Your task to perform on an android device: snooze an email in the gmail app Image 0: 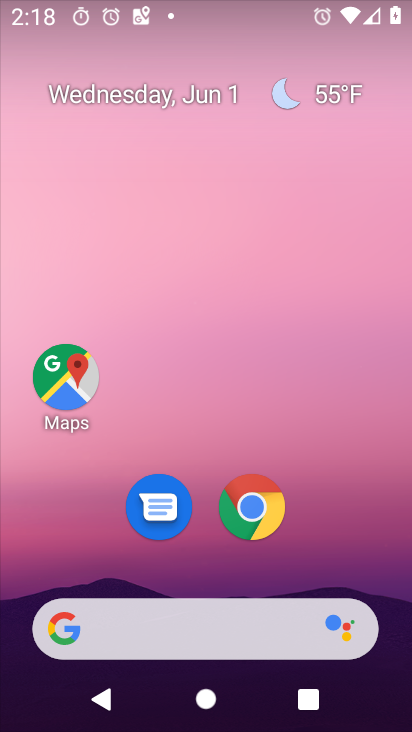
Step 0: drag from (402, 566) to (297, 18)
Your task to perform on an android device: snooze an email in the gmail app Image 1: 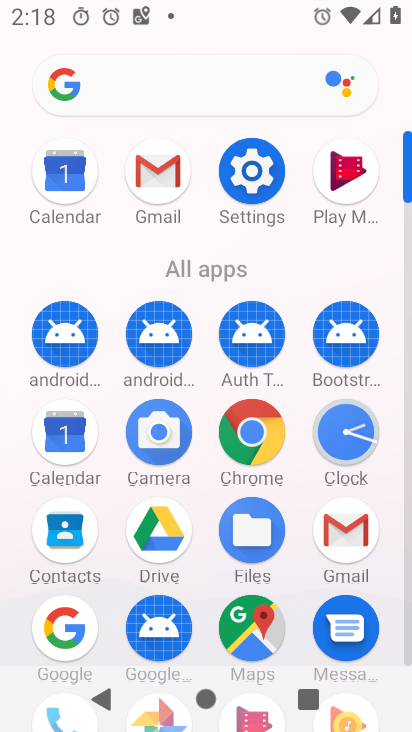
Step 1: click (165, 178)
Your task to perform on an android device: snooze an email in the gmail app Image 2: 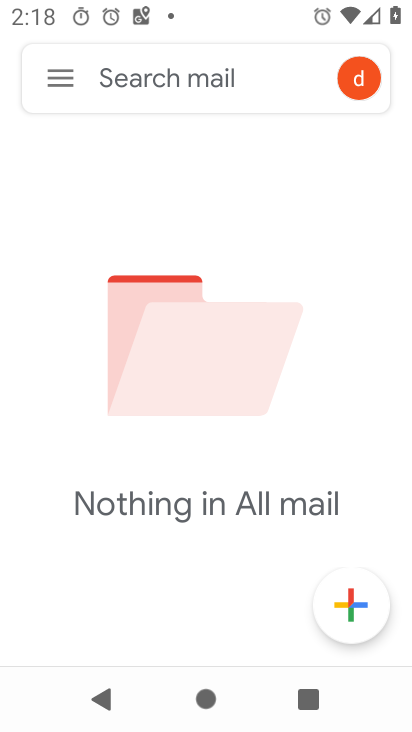
Step 2: click (62, 83)
Your task to perform on an android device: snooze an email in the gmail app Image 3: 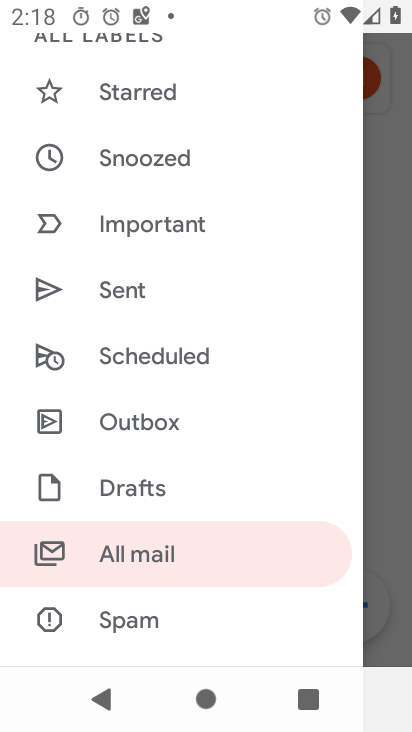
Step 3: click (132, 534)
Your task to perform on an android device: snooze an email in the gmail app Image 4: 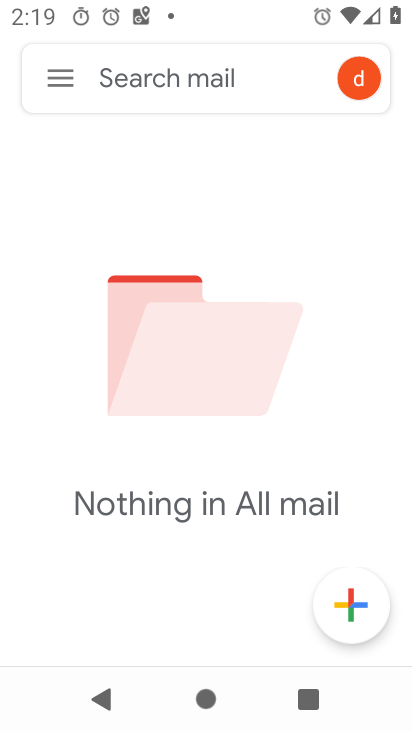
Step 4: task complete